Your task to perform on an android device: Go to Maps Image 0: 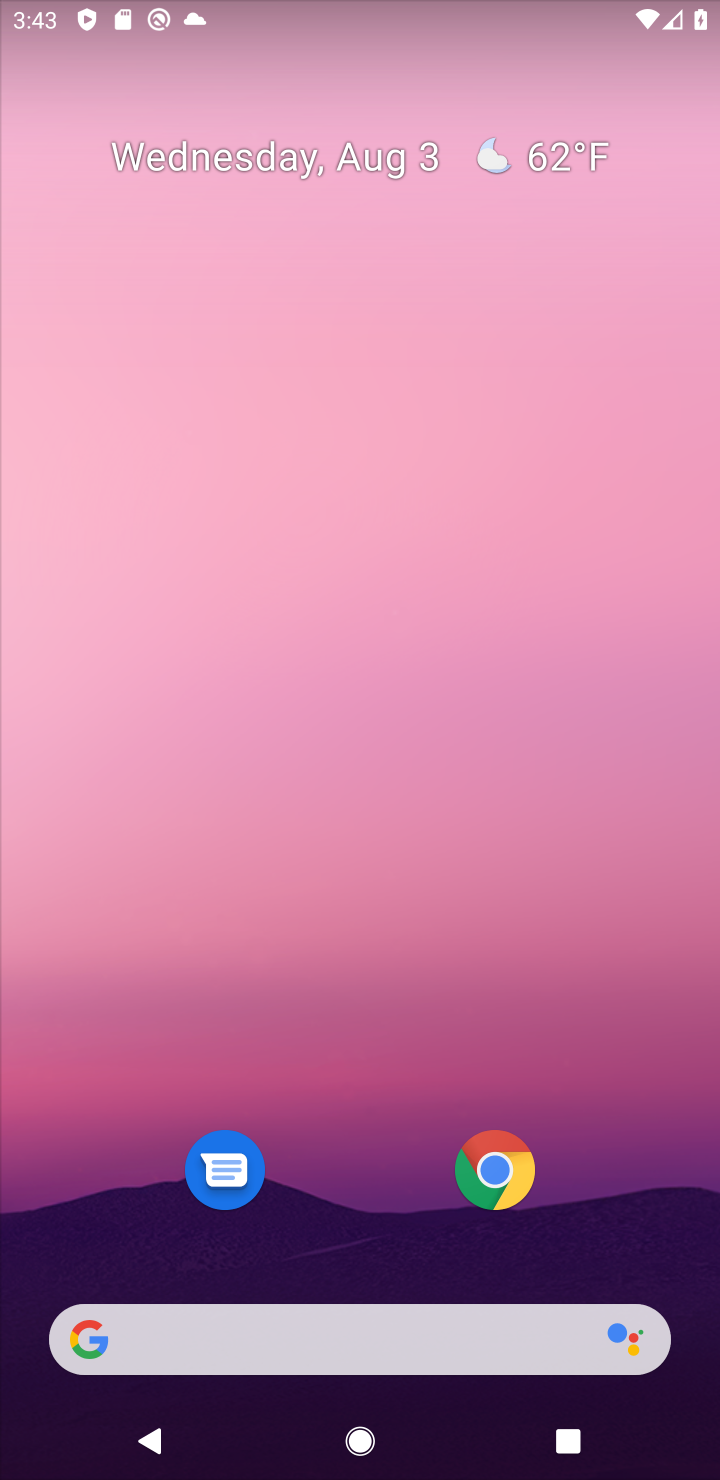
Step 0: click (320, 1355)
Your task to perform on an android device: Go to Maps Image 1: 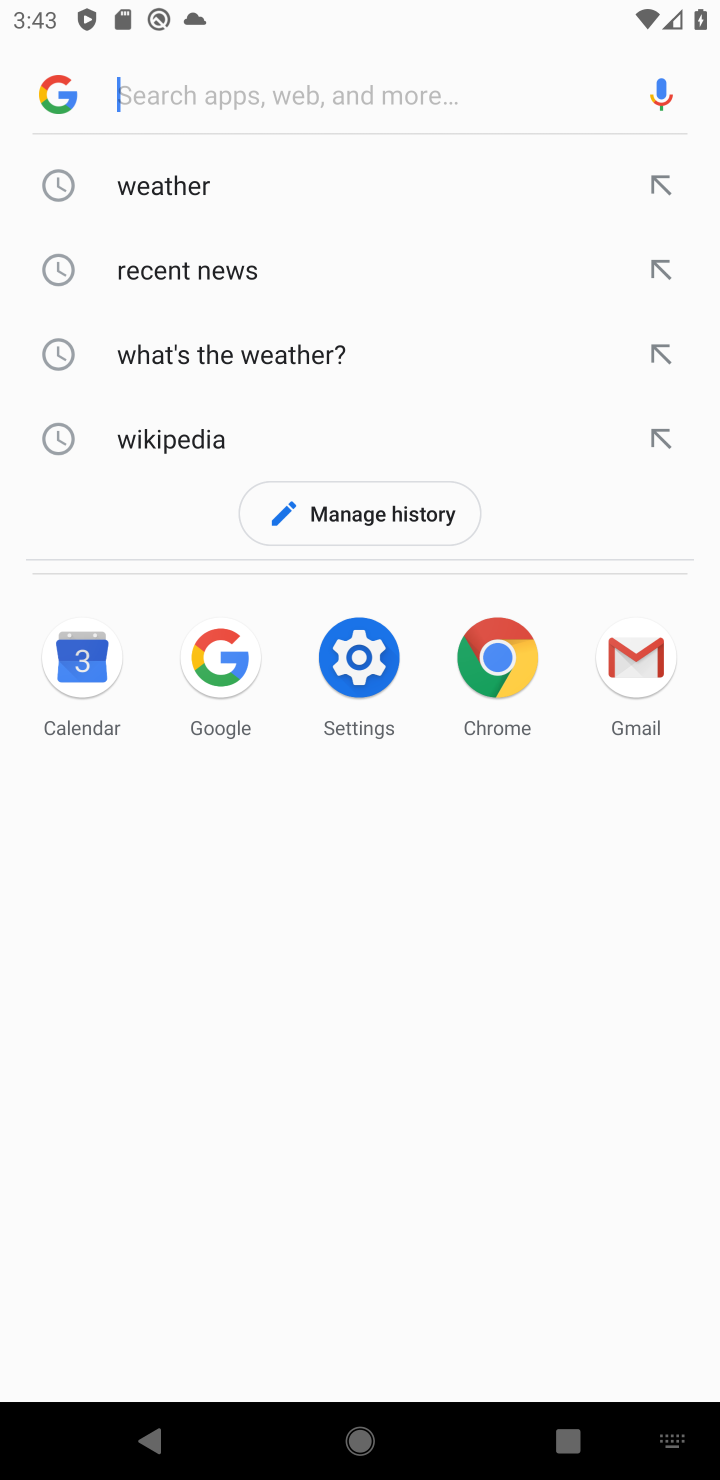
Step 1: click (199, 175)
Your task to perform on an android device: Go to Maps Image 2: 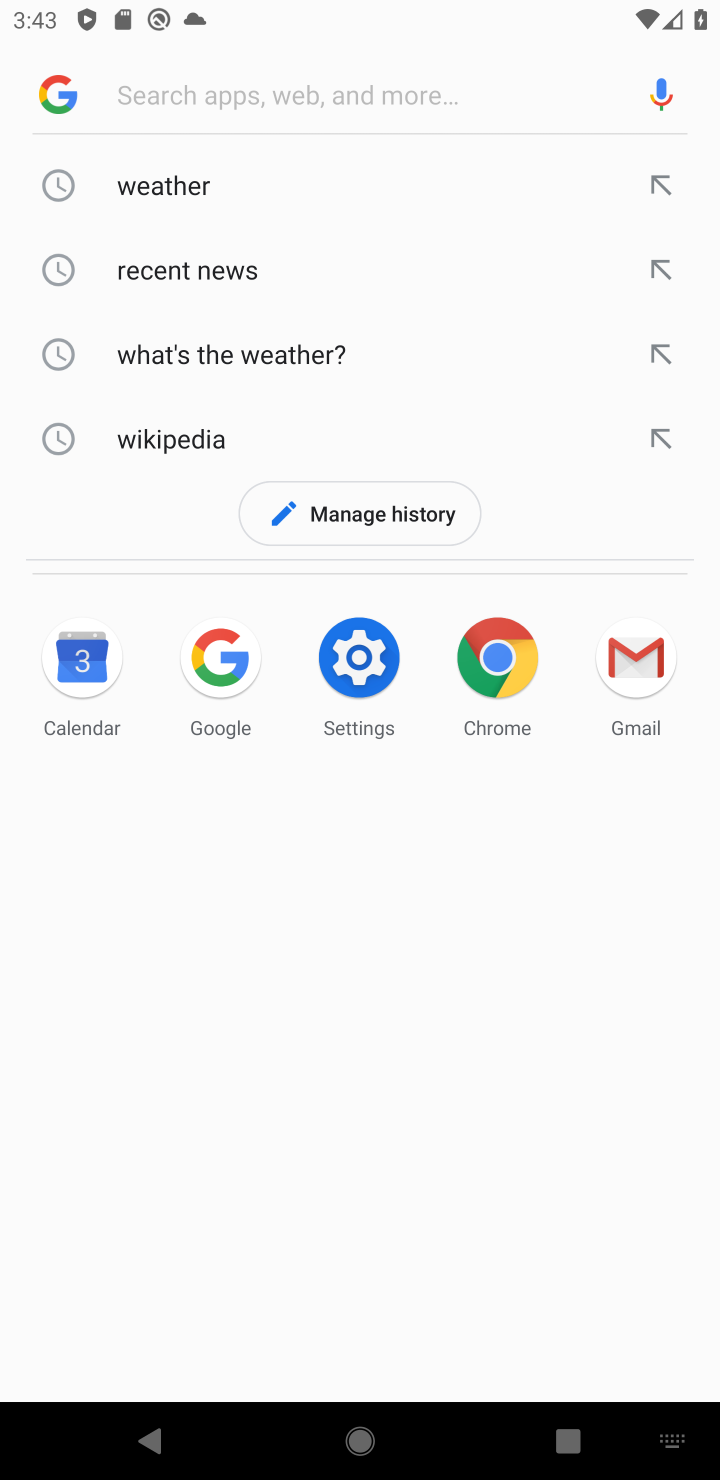
Step 2: click (184, 189)
Your task to perform on an android device: Go to Maps Image 3: 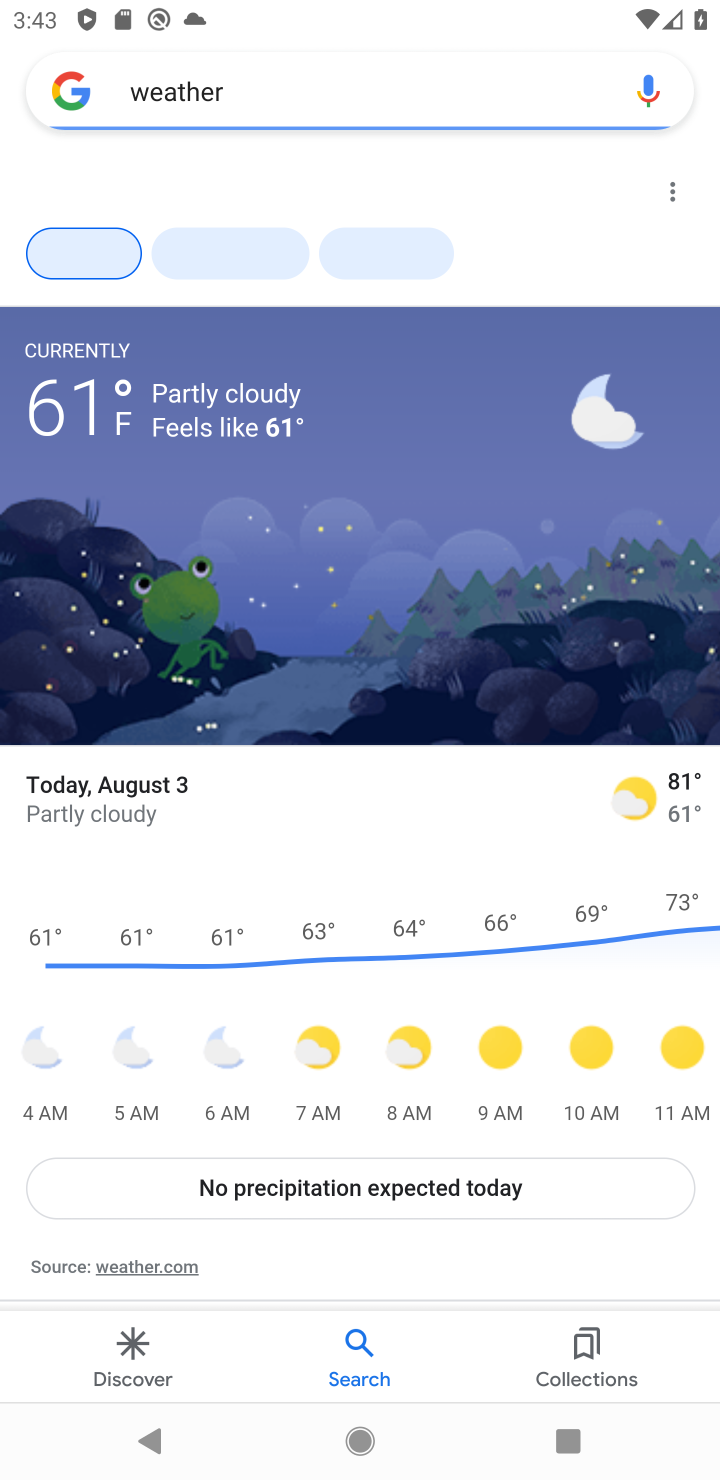
Step 3: click (184, 189)
Your task to perform on an android device: Go to Maps Image 4: 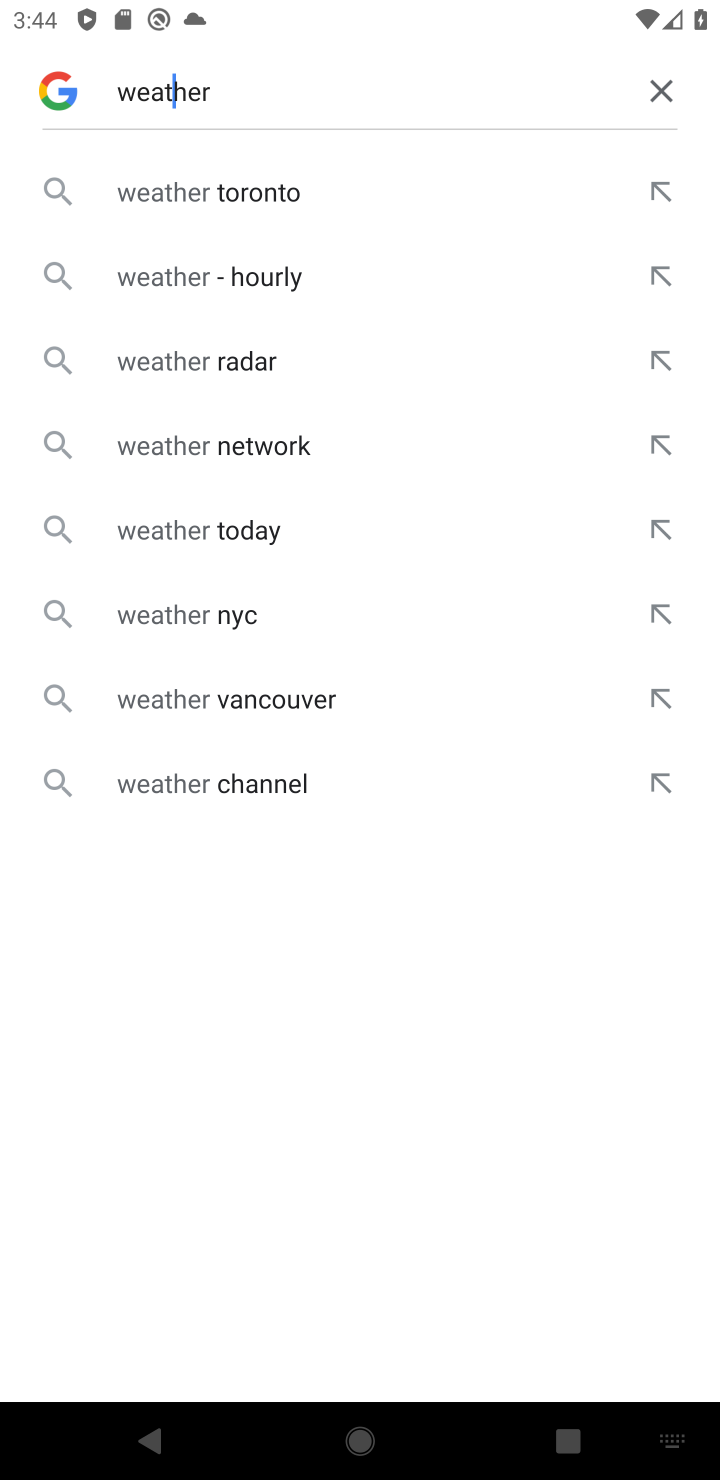
Step 4: click (664, 101)
Your task to perform on an android device: Go to Maps Image 5: 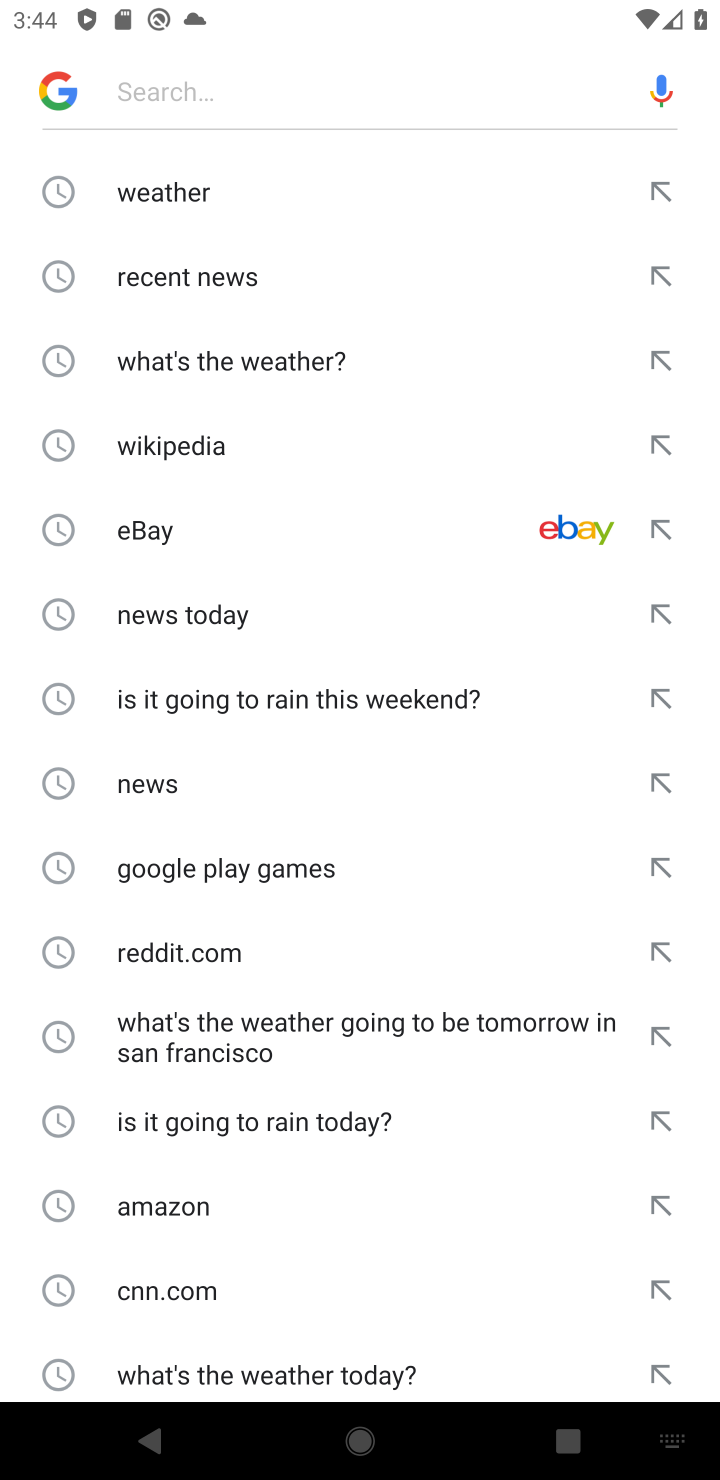
Step 5: click (137, 189)
Your task to perform on an android device: Go to Maps Image 6: 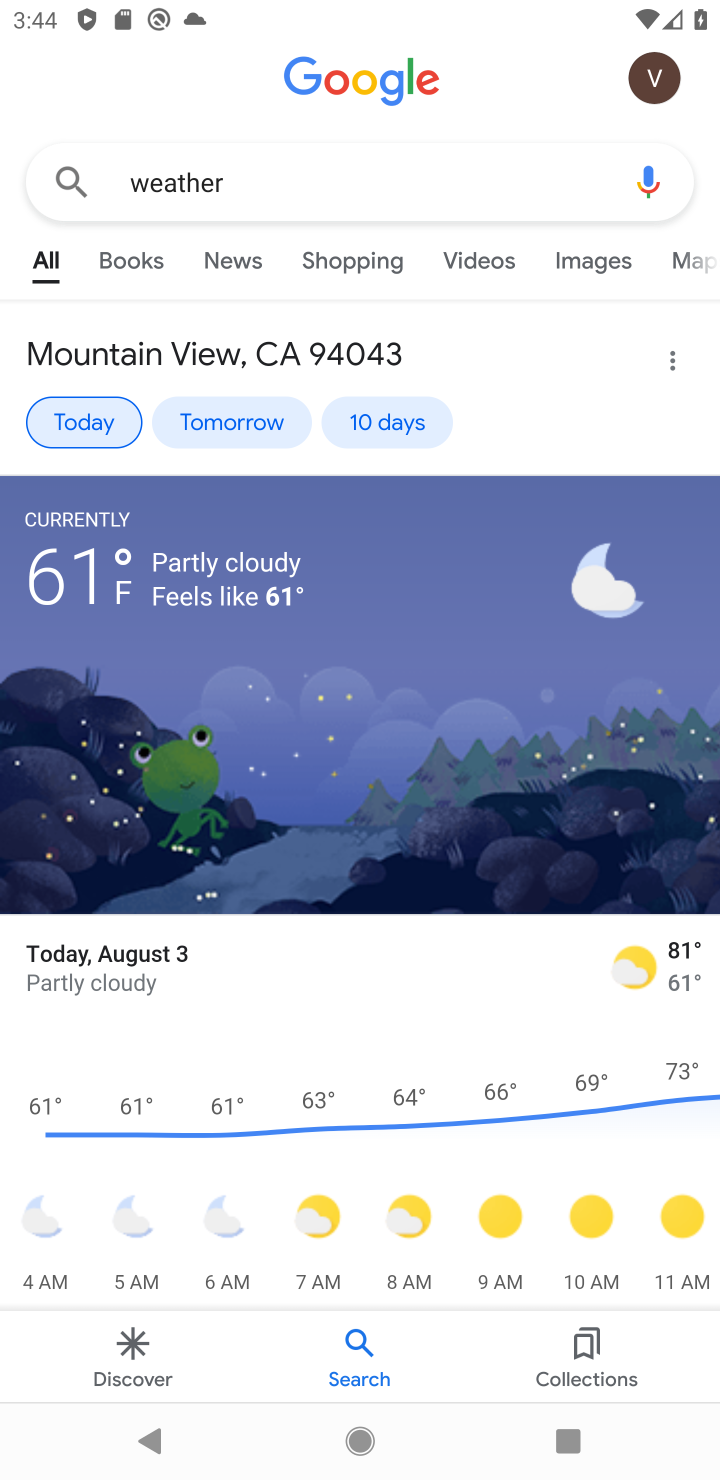
Step 6: click (222, 250)
Your task to perform on an android device: Go to Maps Image 7: 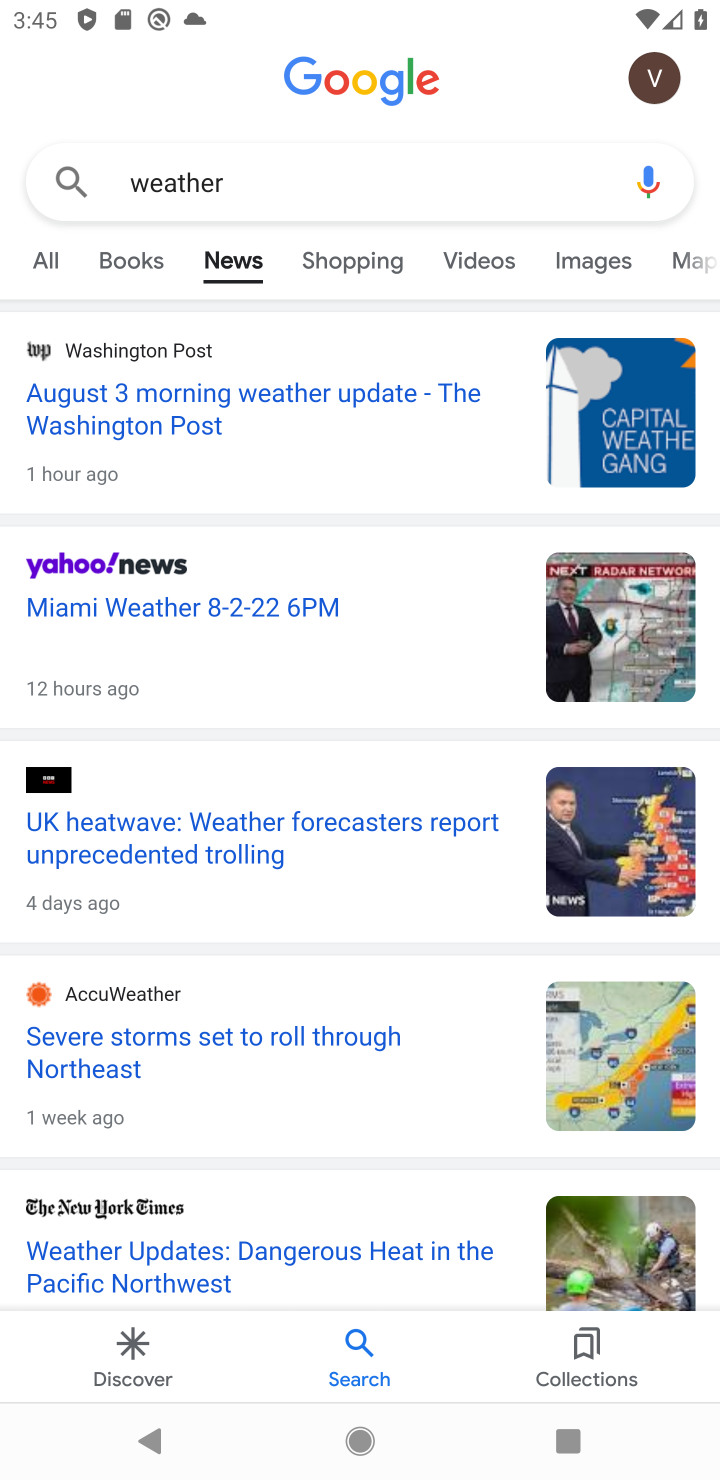
Step 7: press back button
Your task to perform on an android device: Go to Maps Image 8: 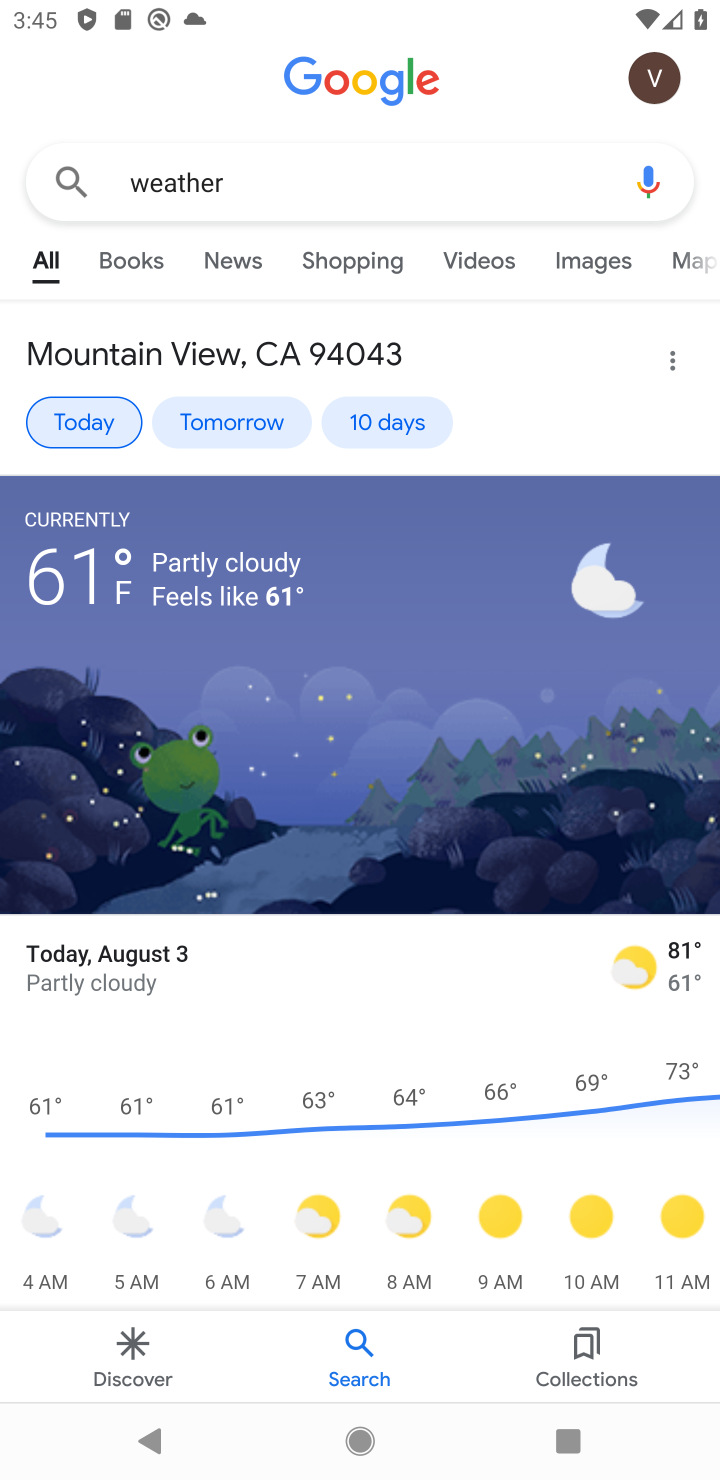
Step 8: press back button
Your task to perform on an android device: Go to Maps Image 9: 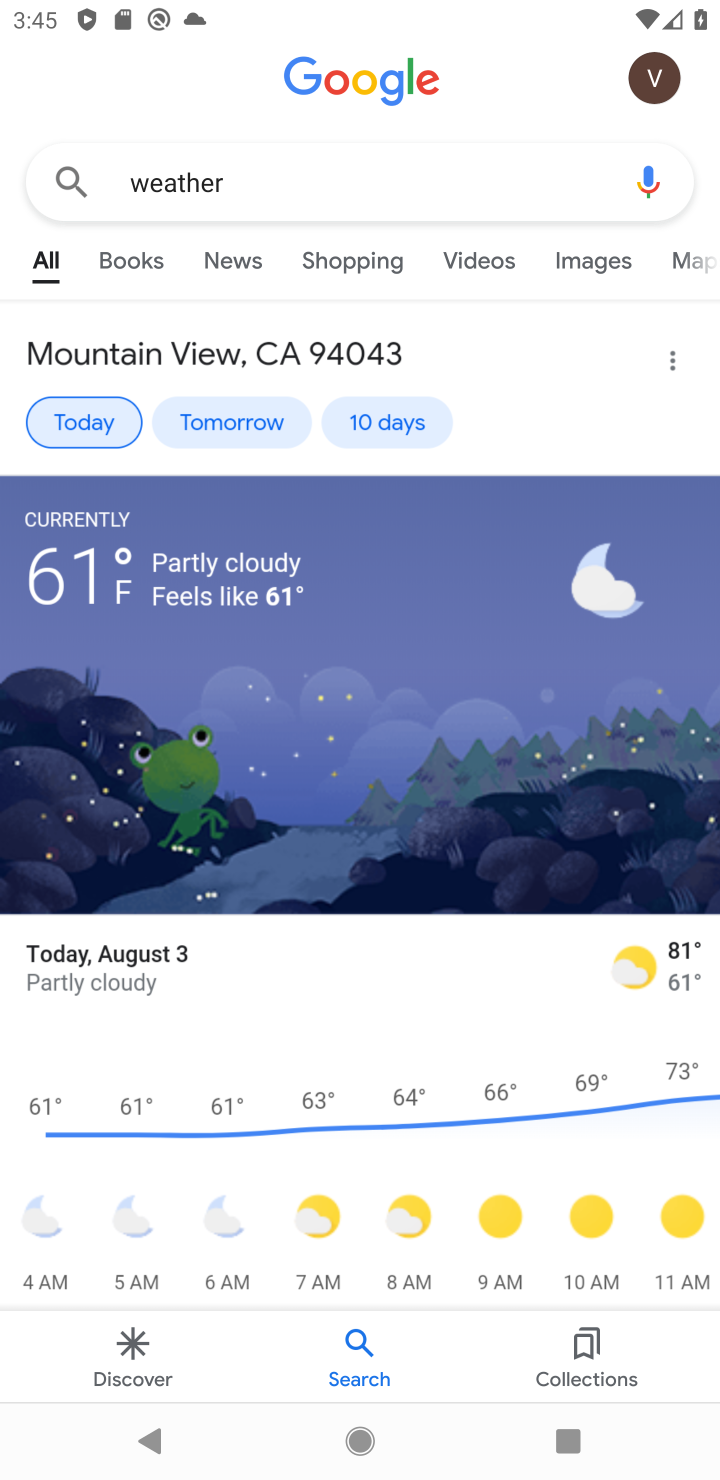
Step 9: click (236, 414)
Your task to perform on an android device: Go to Maps Image 10: 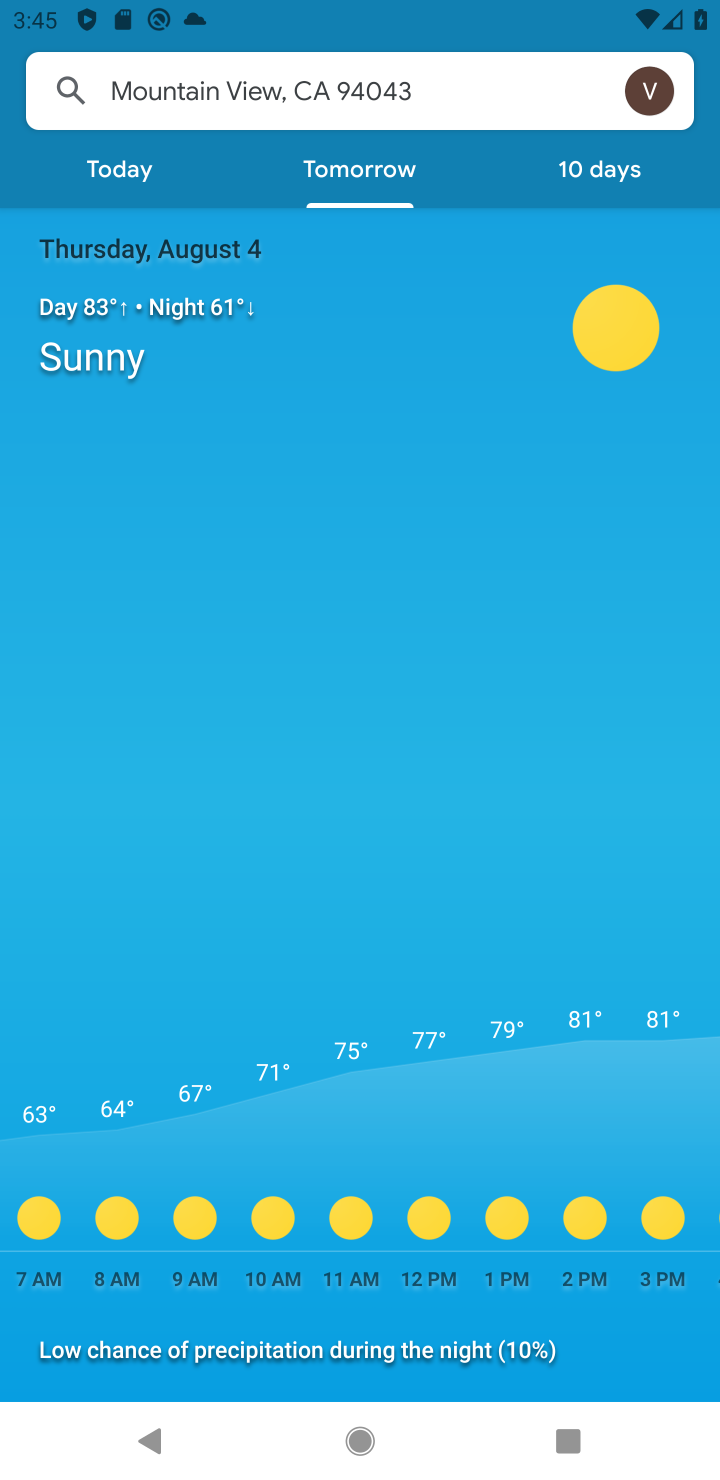
Step 10: task complete